Your task to perform on an android device: delete browsing data in the chrome app Image 0: 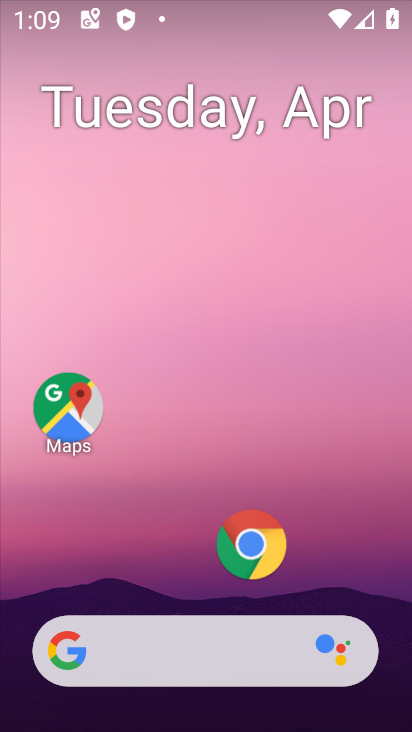
Step 0: drag from (335, 541) to (325, 205)
Your task to perform on an android device: delete browsing data in the chrome app Image 1: 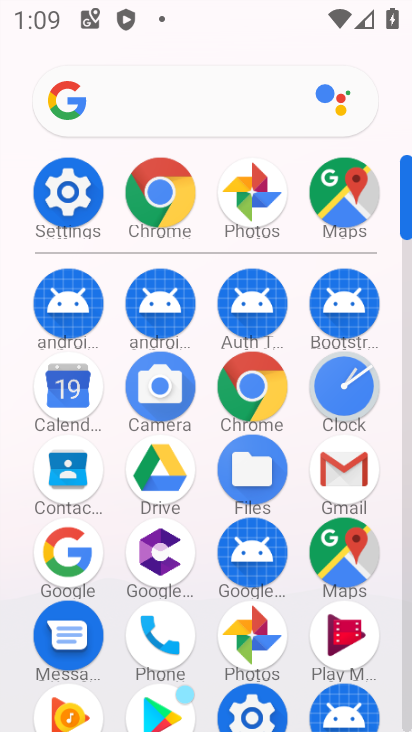
Step 1: click (248, 377)
Your task to perform on an android device: delete browsing data in the chrome app Image 2: 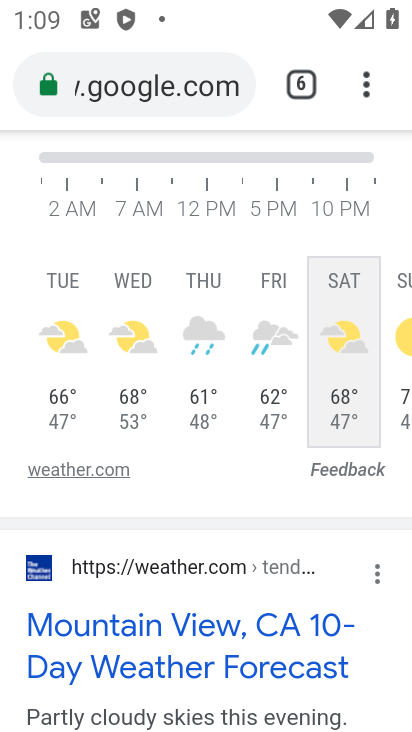
Step 2: click (359, 89)
Your task to perform on an android device: delete browsing data in the chrome app Image 3: 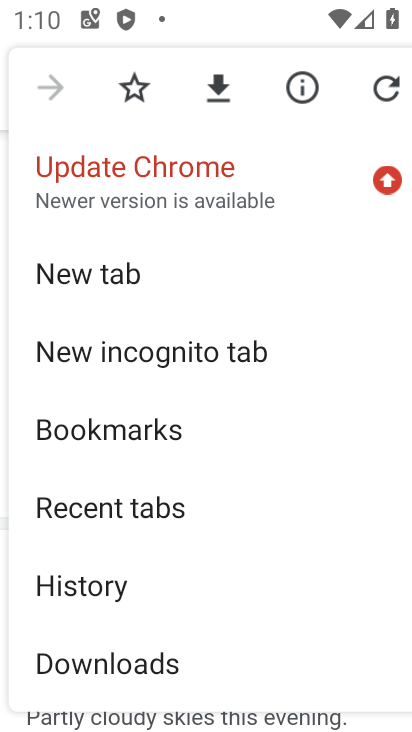
Step 3: drag from (301, 633) to (297, 166)
Your task to perform on an android device: delete browsing data in the chrome app Image 4: 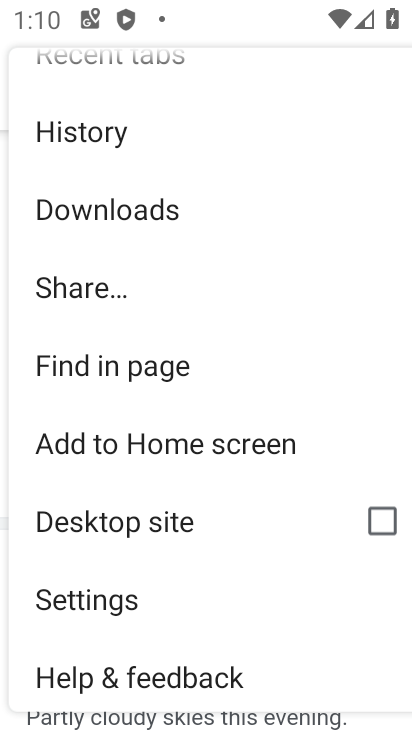
Step 4: click (127, 604)
Your task to perform on an android device: delete browsing data in the chrome app Image 5: 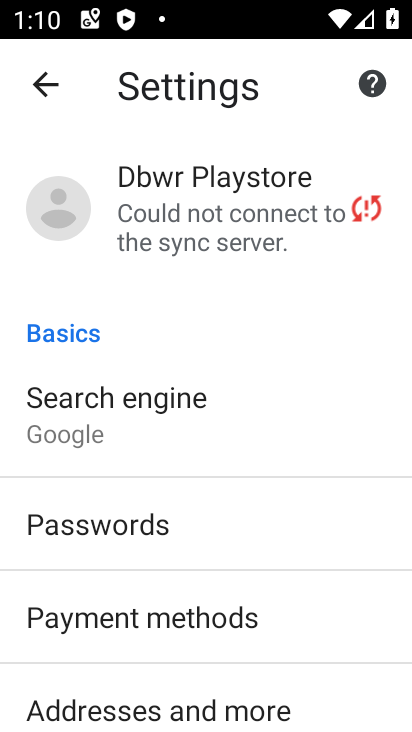
Step 5: drag from (203, 633) to (289, 274)
Your task to perform on an android device: delete browsing data in the chrome app Image 6: 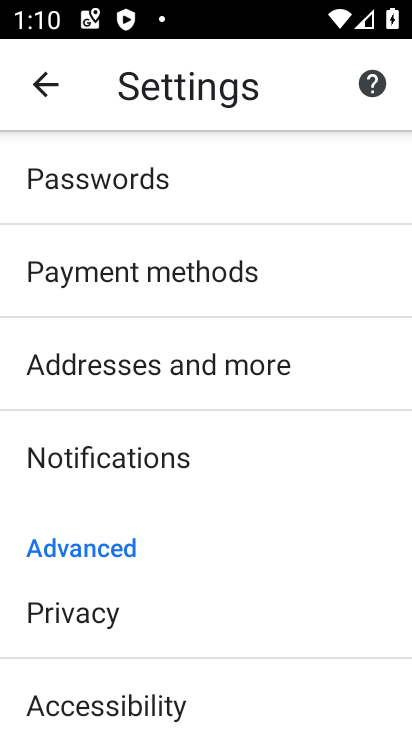
Step 6: click (157, 609)
Your task to perform on an android device: delete browsing data in the chrome app Image 7: 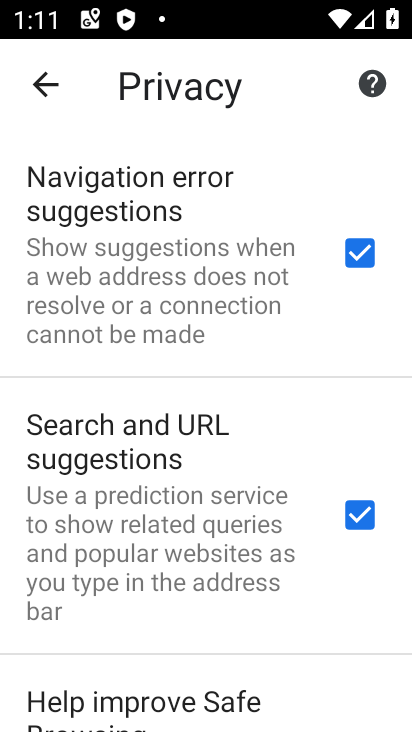
Step 7: drag from (168, 564) to (260, 151)
Your task to perform on an android device: delete browsing data in the chrome app Image 8: 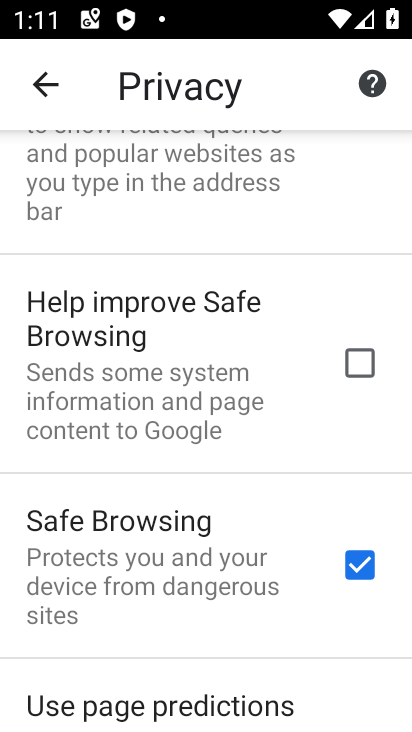
Step 8: drag from (178, 566) to (225, 253)
Your task to perform on an android device: delete browsing data in the chrome app Image 9: 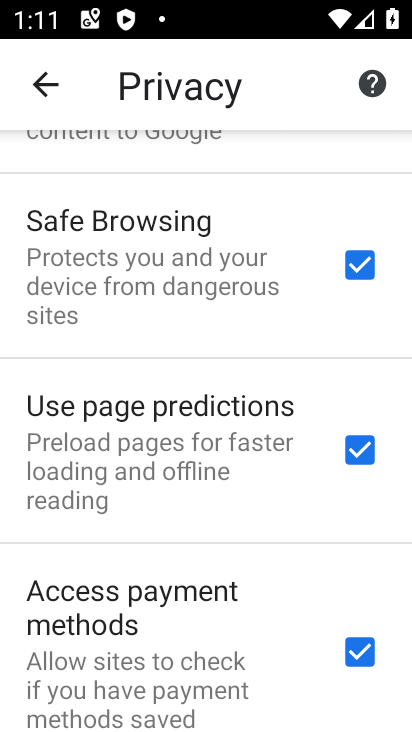
Step 9: drag from (203, 608) to (243, 349)
Your task to perform on an android device: delete browsing data in the chrome app Image 10: 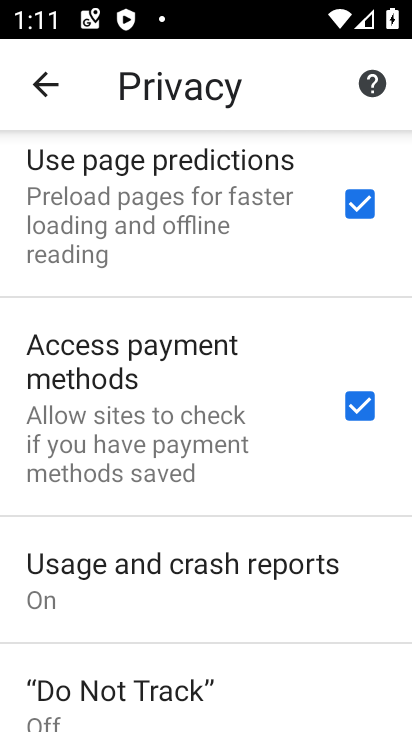
Step 10: drag from (206, 651) to (227, 270)
Your task to perform on an android device: delete browsing data in the chrome app Image 11: 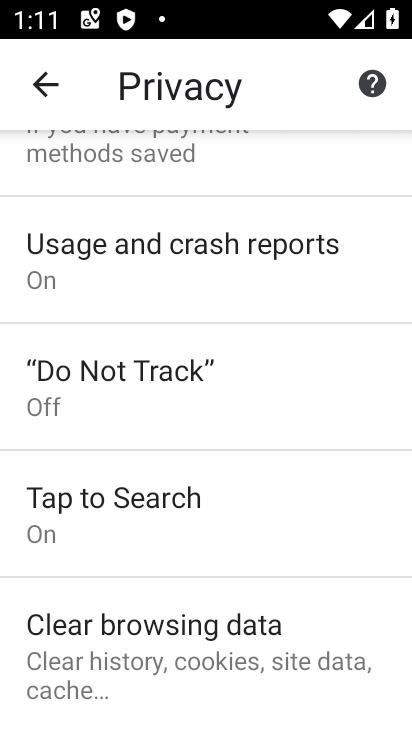
Step 11: click (197, 667)
Your task to perform on an android device: delete browsing data in the chrome app Image 12: 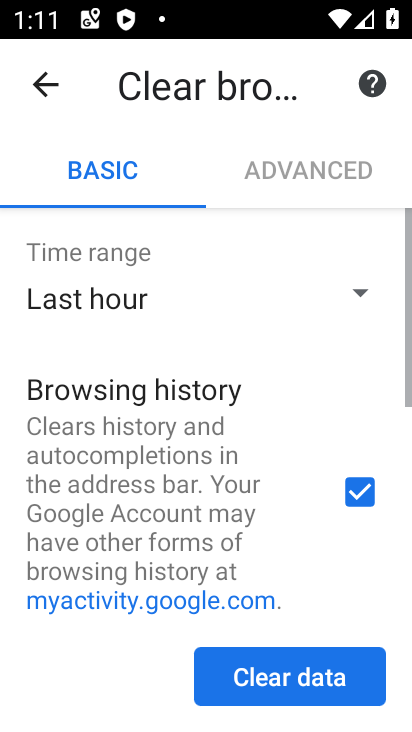
Step 12: click (294, 647)
Your task to perform on an android device: delete browsing data in the chrome app Image 13: 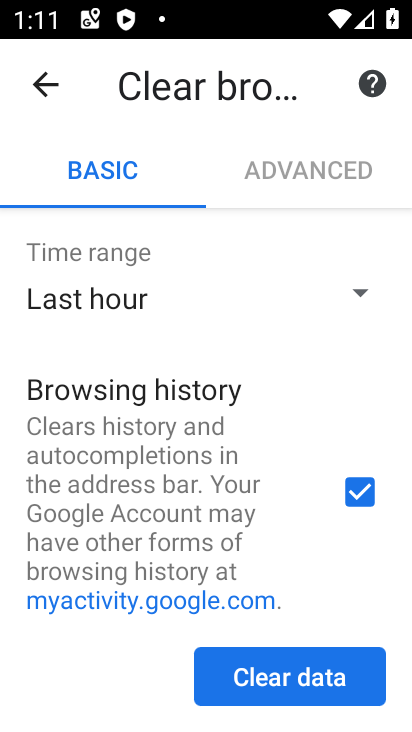
Step 13: click (292, 672)
Your task to perform on an android device: delete browsing data in the chrome app Image 14: 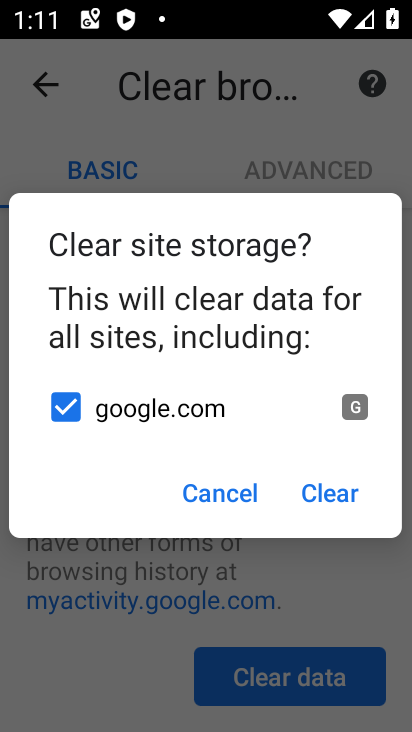
Step 14: click (337, 483)
Your task to perform on an android device: delete browsing data in the chrome app Image 15: 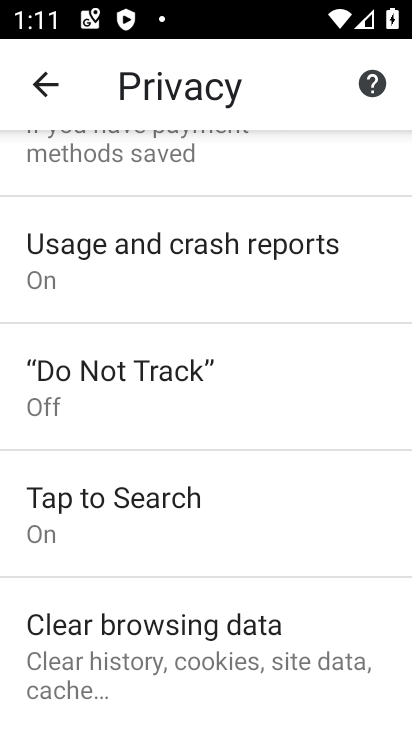
Step 15: task complete